Your task to perform on an android device: Go to battery settings Image 0: 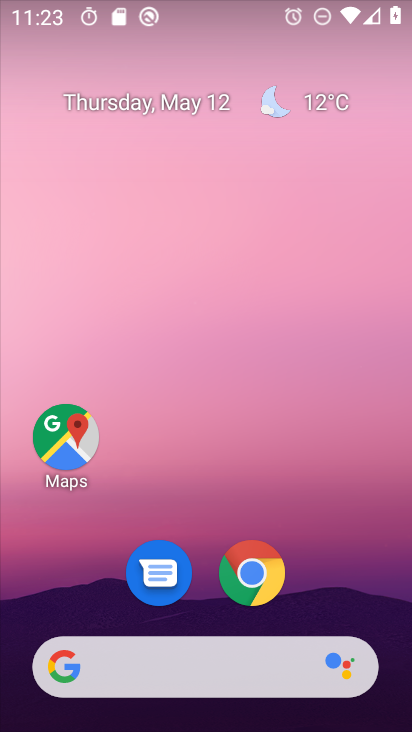
Step 0: drag from (389, 637) to (353, 267)
Your task to perform on an android device: Go to battery settings Image 1: 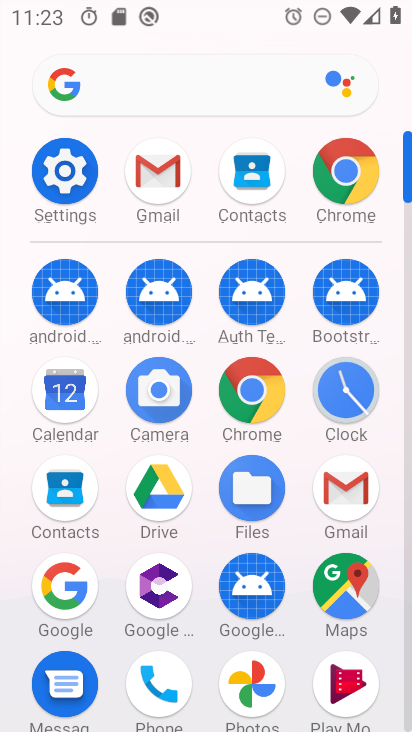
Step 1: click (71, 171)
Your task to perform on an android device: Go to battery settings Image 2: 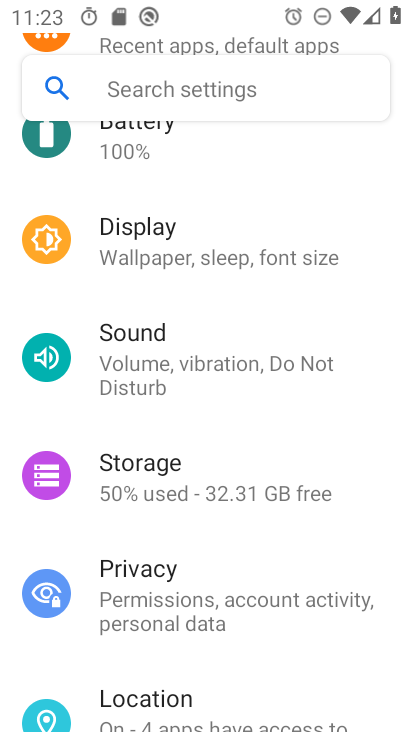
Step 2: drag from (263, 197) to (286, 398)
Your task to perform on an android device: Go to battery settings Image 3: 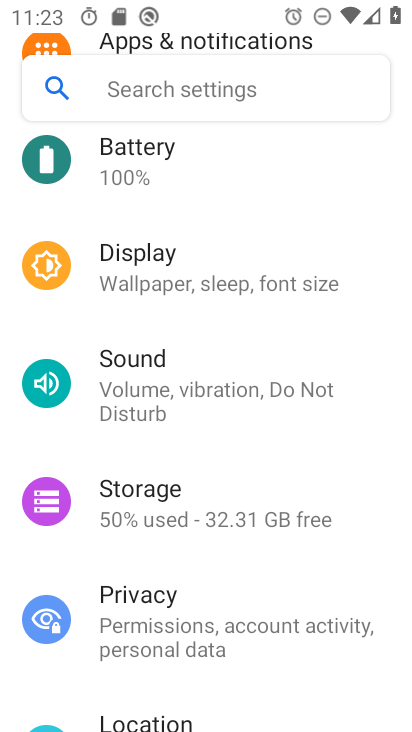
Step 3: click (120, 148)
Your task to perform on an android device: Go to battery settings Image 4: 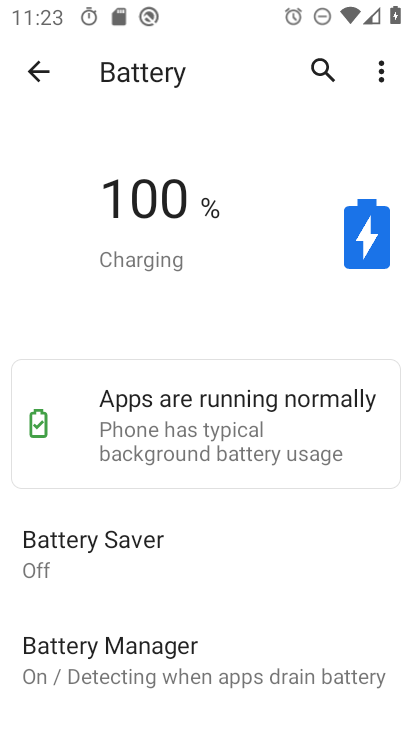
Step 4: task complete